Your task to perform on an android device: Go to wifi settings Image 0: 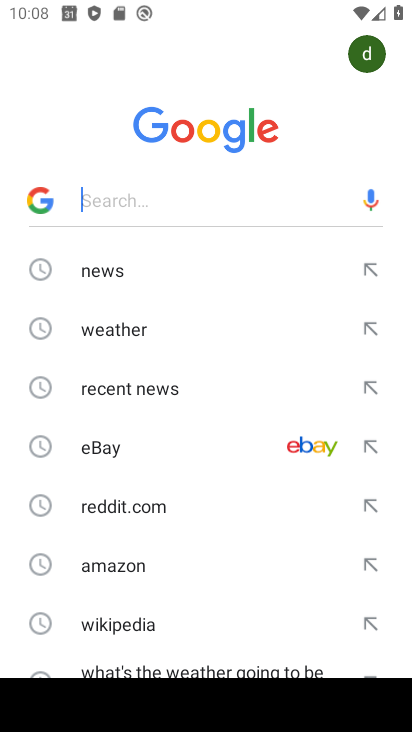
Step 0: press home button
Your task to perform on an android device: Go to wifi settings Image 1: 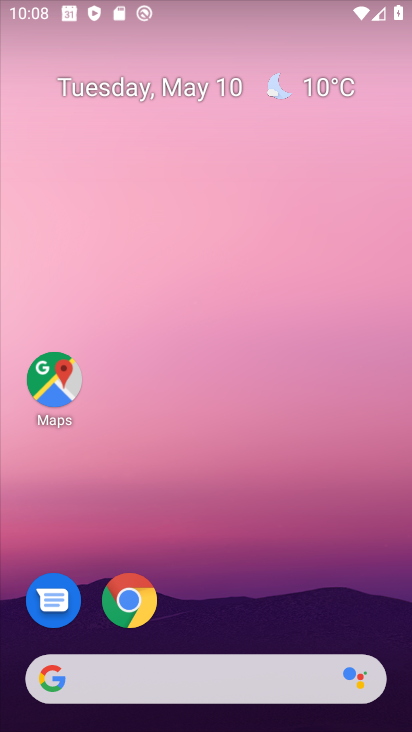
Step 1: drag from (320, 501) to (44, 45)
Your task to perform on an android device: Go to wifi settings Image 2: 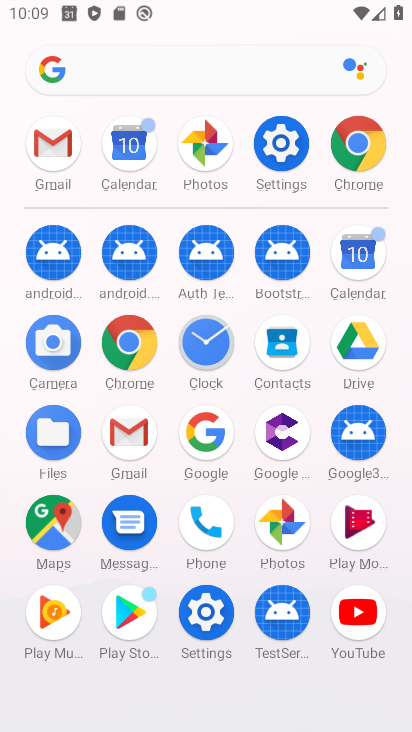
Step 2: click (280, 155)
Your task to perform on an android device: Go to wifi settings Image 3: 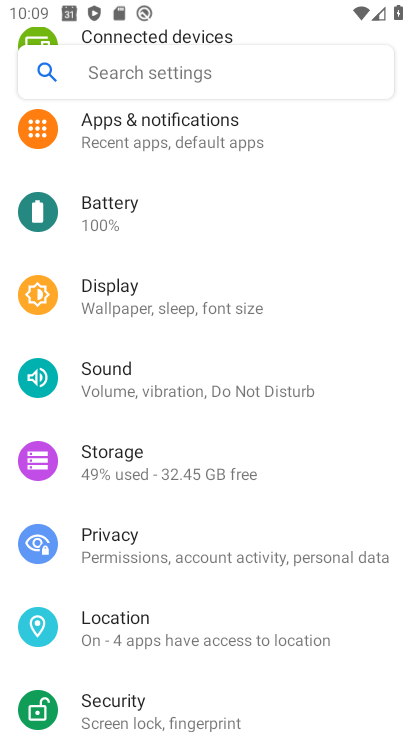
Step 3: drag from (87, 231) to (162, 524)
Your task to perform on an android device: Go to wifi settings Image 4: 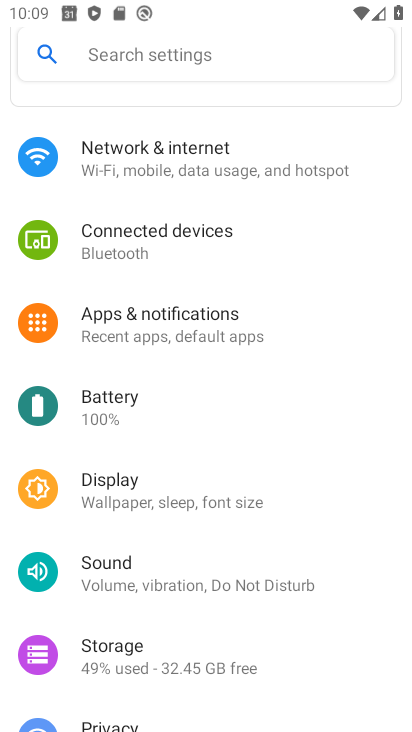
Step 4: drag from (176, 202) to (147, 580)
Your task to perform on an android device: Go to wifi settings Image 5: 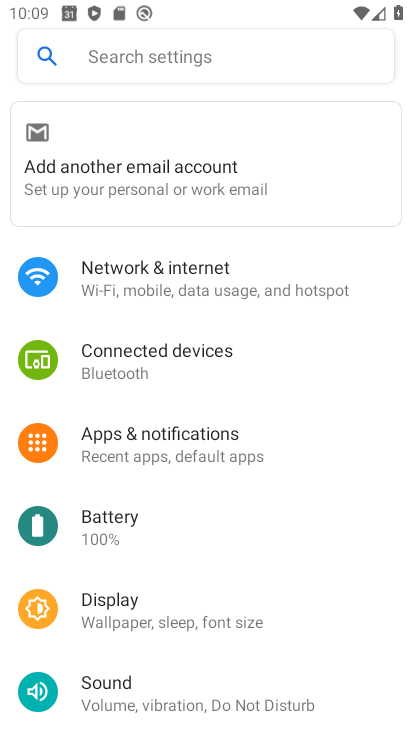
Step 5: click (152, 293)
Your task to perform on an android device: Go to wifi settings Image 6: 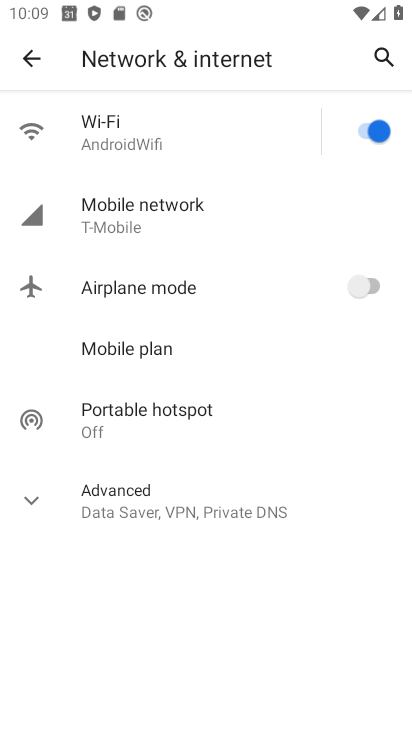
Step 6: click (148, 136)
Your task to perform on an android device: Go to wifi settings Image 7: 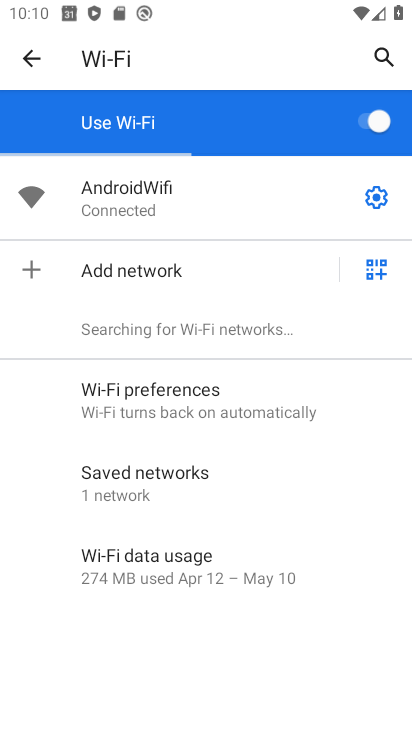
Step 7: task complete